Your task to perform on an android device: turn notification dots on Image 0: 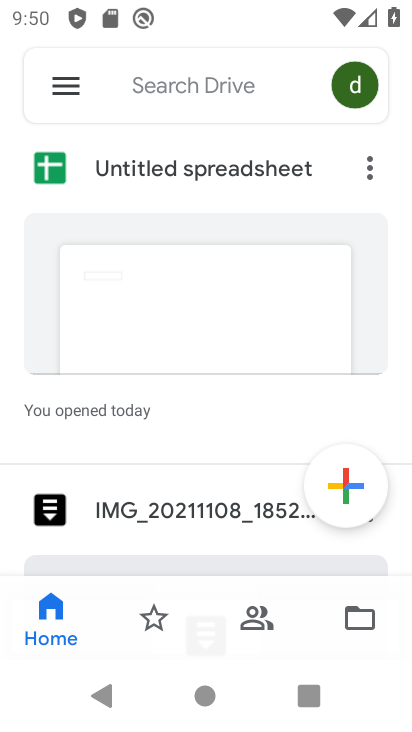
Step 0: press home button
Your task to perform on an android device: turn notification dots on Image 1: 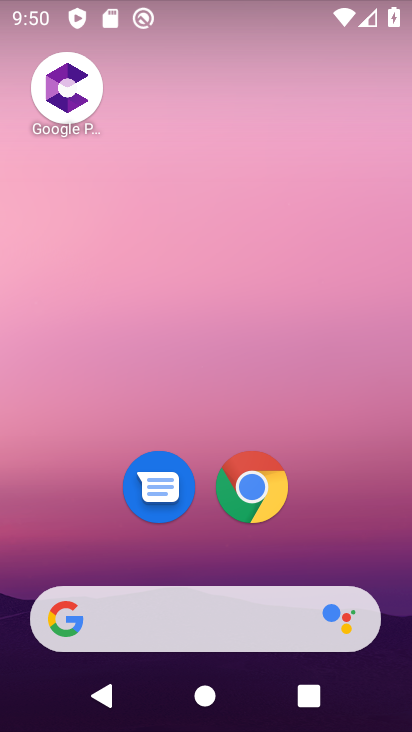
Step 1: drag from (403, 706) to (362, 164)
Your task to perform on an android device: turn notification dots on Image 2: 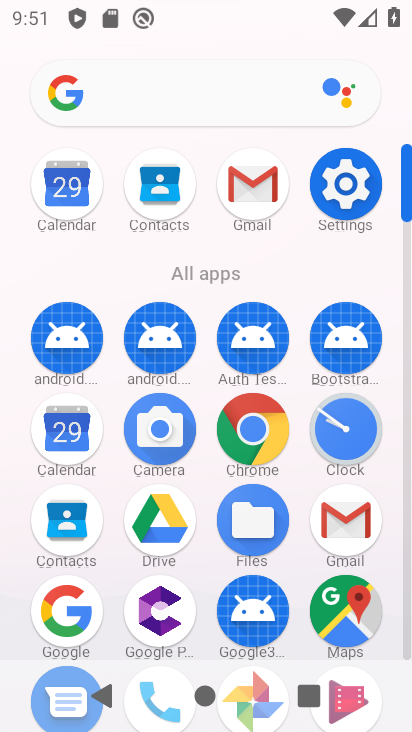
Step 2: click (348, 206)
Your task to perform on an android device: turn notification dots on Image 3: 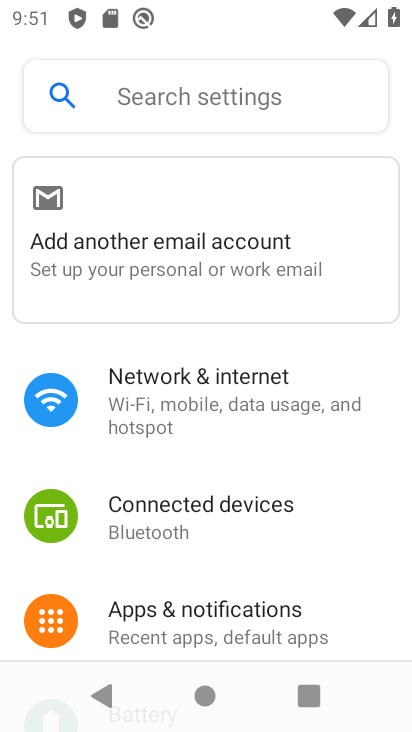
Step 3: click (123, 610)
Your task to perform on an android device: turn notification dots on Image 4: 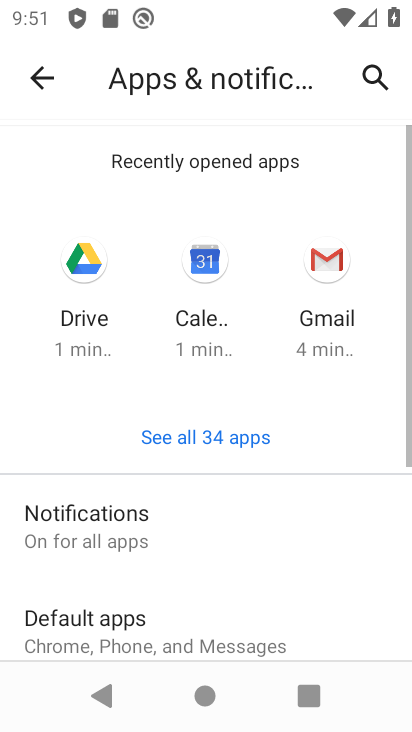
Step 4: click (74, 527)
Your task to perform on an android device: turn notification dots on Image 5: 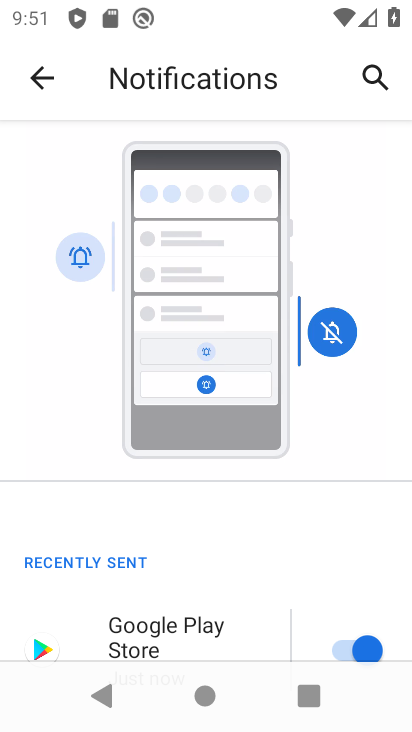
Step 5: drag from (248, 620) to (180, 203)
Your task to perform on an android device: turn notification dots on Image 6: 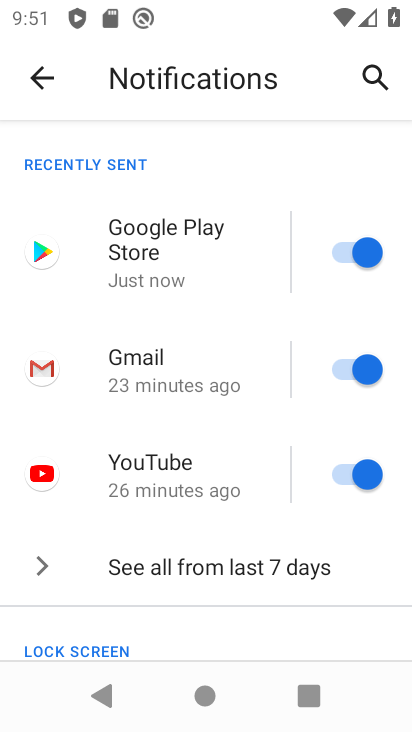
Step 6: drag from (221, 642) to (186, 271)
Your task to perform on an android device: turn notification dots on Image 7: 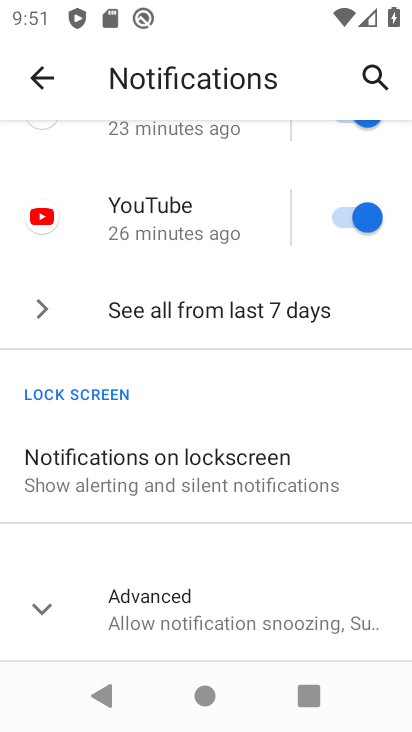
Step 7: drag from (276, 573) to (240, 356)
Your task to perform on an android device: turn notification dots on Image 8: 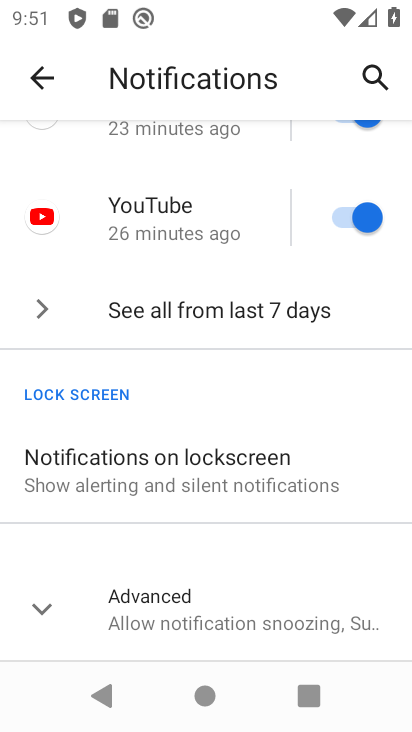
Step 8: click (44, 609)
Your task to perform on an android device: turn notification dots on Image 9: 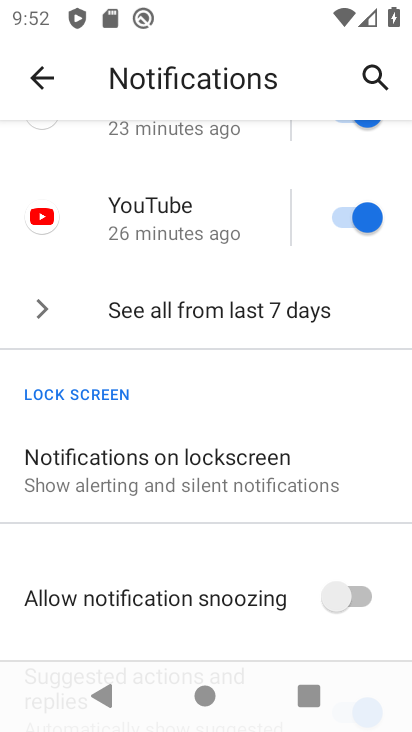
Step 9: task complete